Your task to perform on an android device: create a new album in the google photos Image 0: 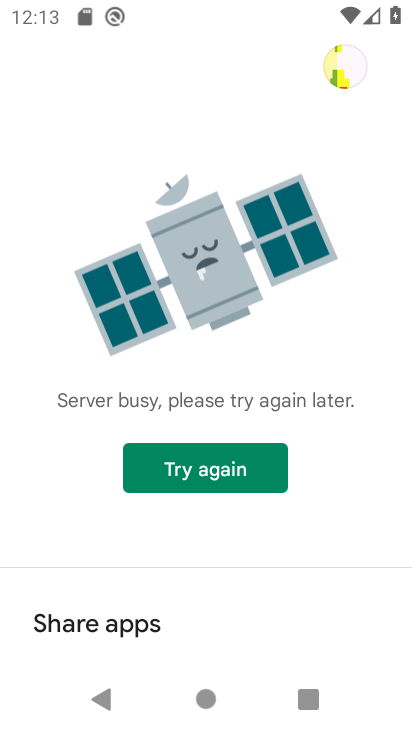
Step 0: press back button
Your task to perform on an android device: create a new album in the google photos Image 1: 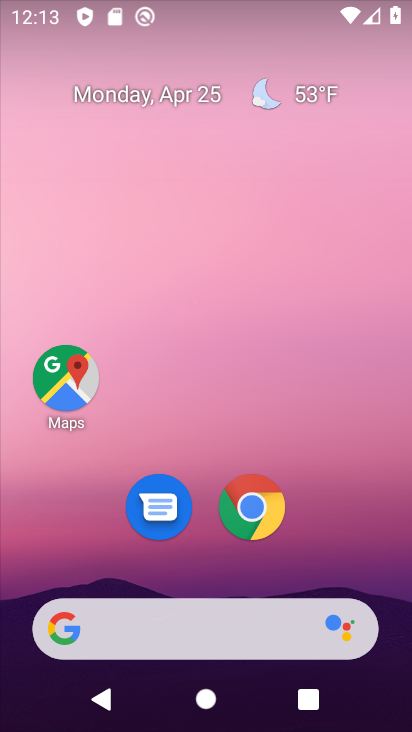
Step 1: drag from (199, 560) to (265, 170)
Your task to perform on an android device: create a new album in the google photos Image 2: 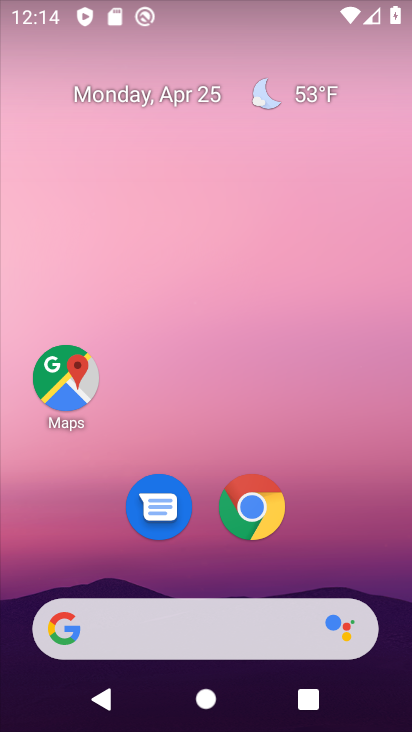
Step 2: drag from (183, 572) to (290, 16)
Your task to perform on an android device: create a new album in the google photos Image 3: 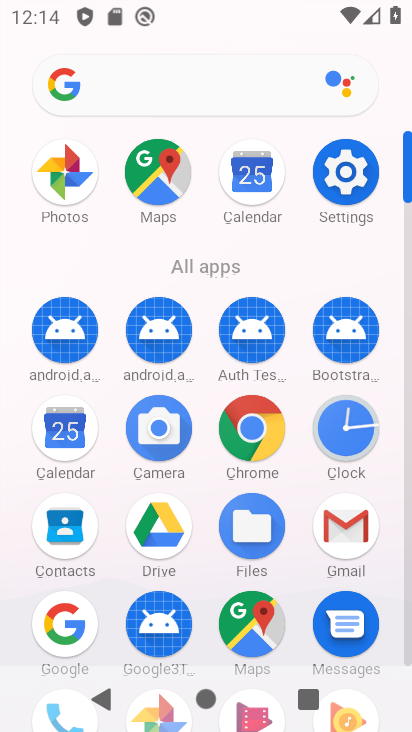
Step 3: drag from (228, 530) to (308, 210)
Your task to perform on an android device: create a new album in the google photos Image 4: 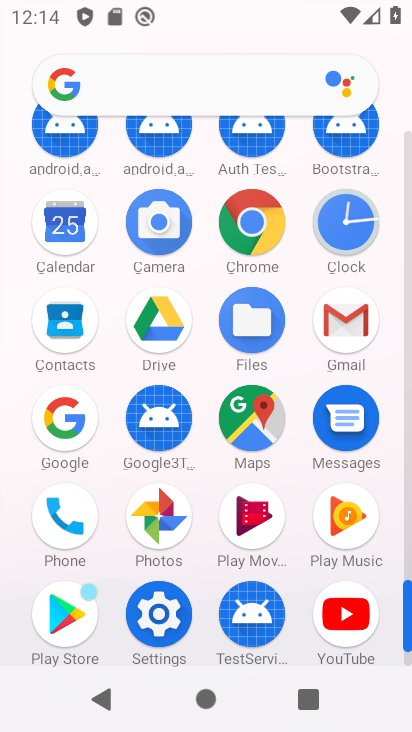
Step 4: click (169, 528)
Your task to perform on an android device: create a new album in the google photos Image 5: 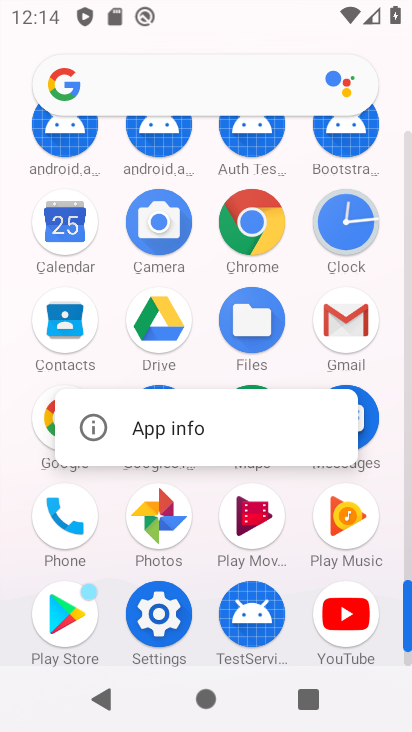
Step 5: click (178, 522)
Your task to perform on an android device: create a new album in the google photos Image 6: 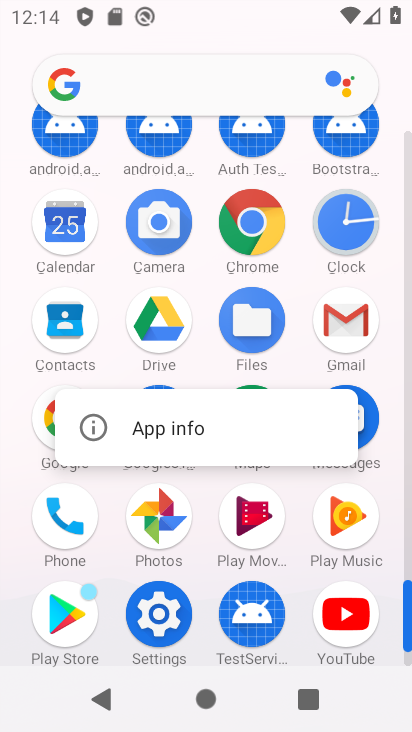
Step 6: click (180, 527)
Your task to perform on an android device: create a new album in the google photos Image 7: 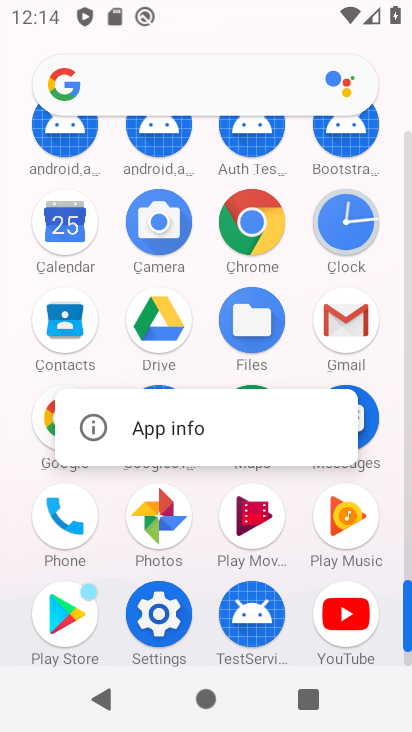
Step 7: click (181, 530)
Your task to perform on an android device: create a new album in the google photos Image 8: 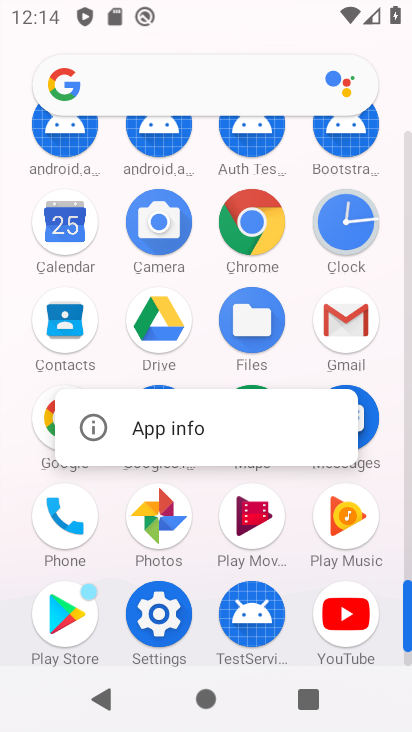
Step 8: click (181, 530)
Your task to perform on an android device: create a new album in the google photos Image 9: 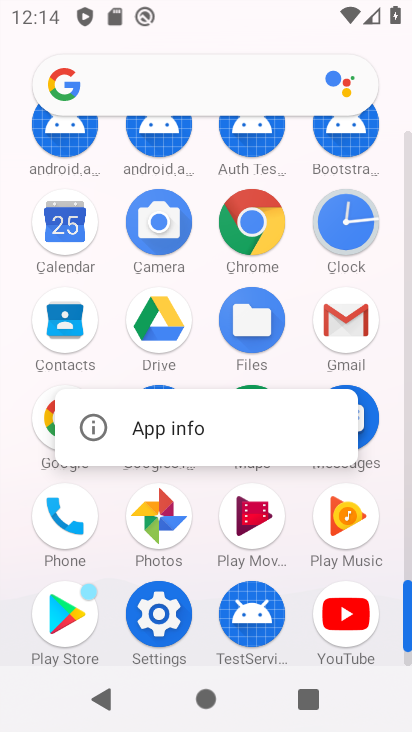
Step 9: click (179, 527)
Your task to perform on an android device: create a new album in the google photos Image 10: 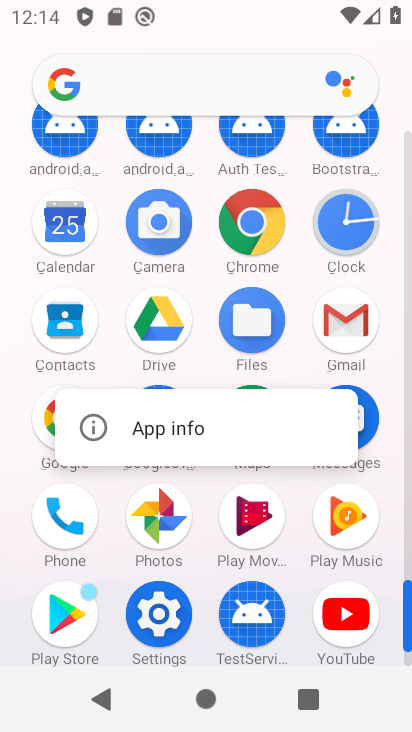
Step 10: click (161, 515)
Your task to perform on an android device: create a new album in the google photos Image 11: 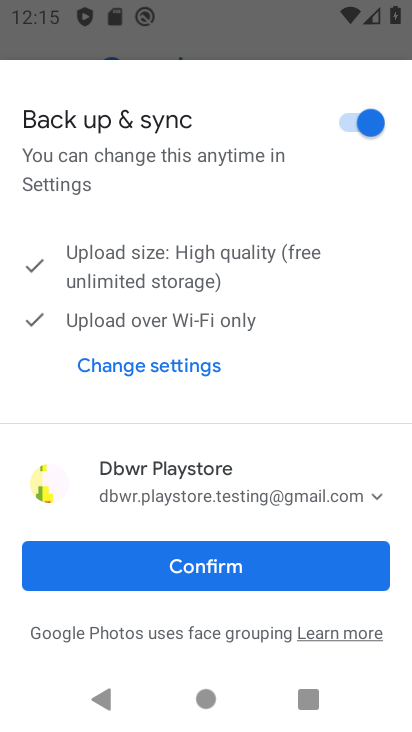
Step 11: click (237, 582)
Your task to perform on an android device: create a new album in the google photos Image 12: 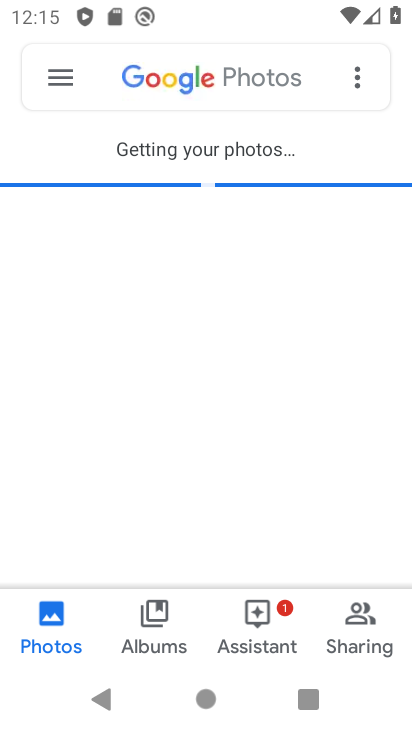
Step 12: click (361, 78)
Your task to perform on an android device: create a new album in the google photos Image 13: 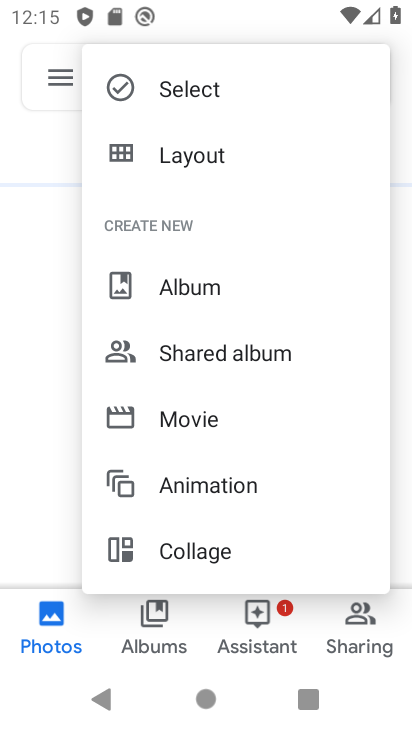
Step 13: click (271, 296)
Your task to perform on an android device: create a new album in the google photos Image 14: 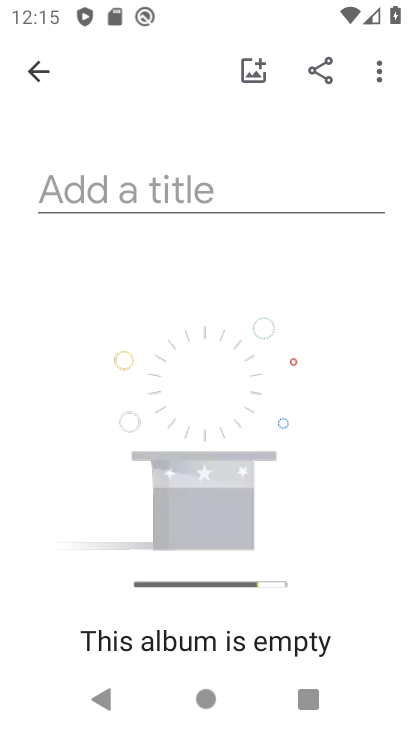
Step 14: click (190, 197)
Your task to perform on an android device: create a new album in the google photos Image 15: 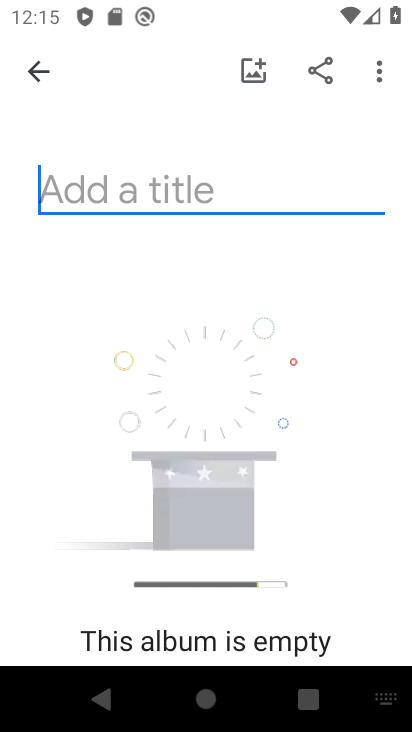
Step 15: type "rrrrrr"
Your task to perform on an android device: create a new album in the google photos Image 16: 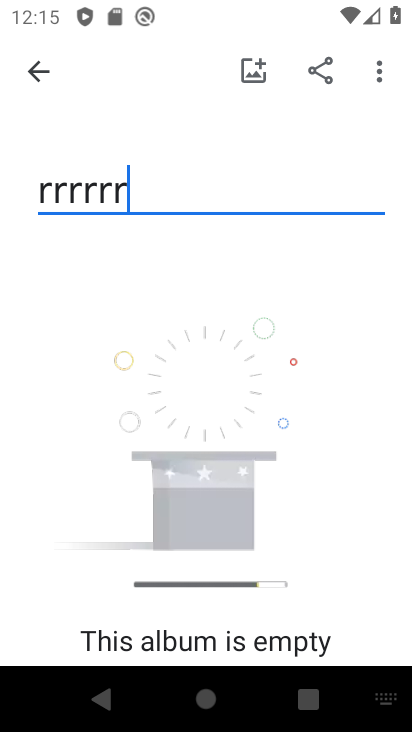
Step 16: drag from (177, 444) to (245, 113)
Your task to perform on an android device: create a new album in the google photos Image 17: 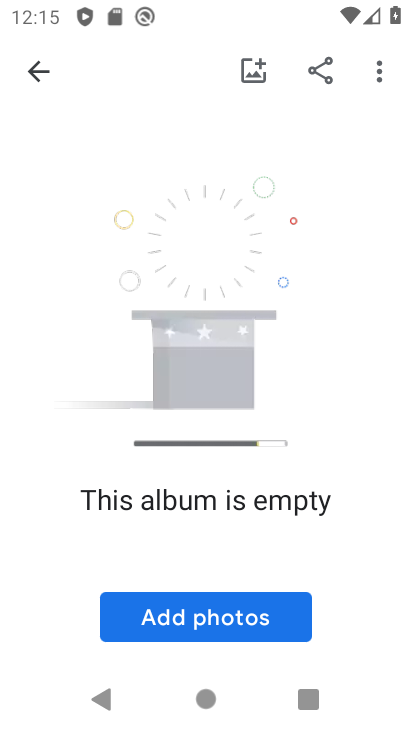
Step 17: click (247, 72)
Your task to perform on an android device: create a new album in the google photos Image 18: 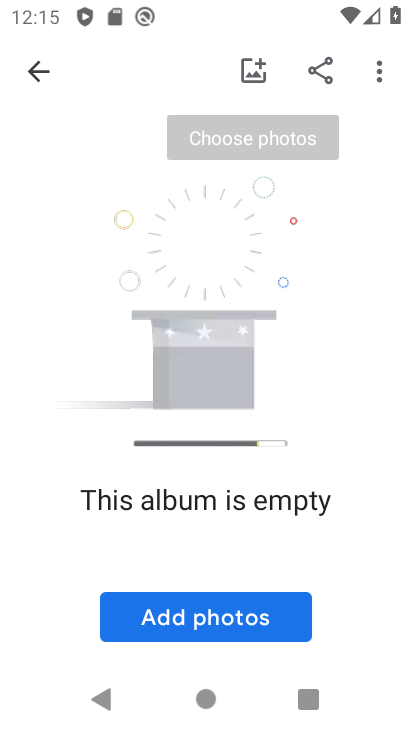
Step 18: click (210, 637)
Your task to perform on an android device: create a new album in the google photos Image 19: 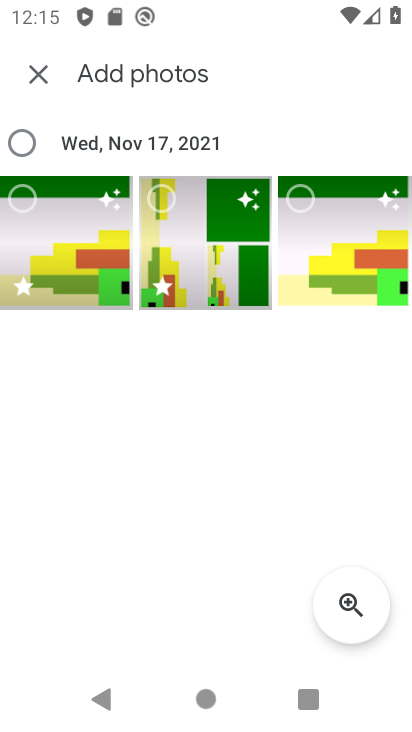
Step 19: click (22, 149)
Your task to perform on an android device: create a new album in the google photos Image 20: 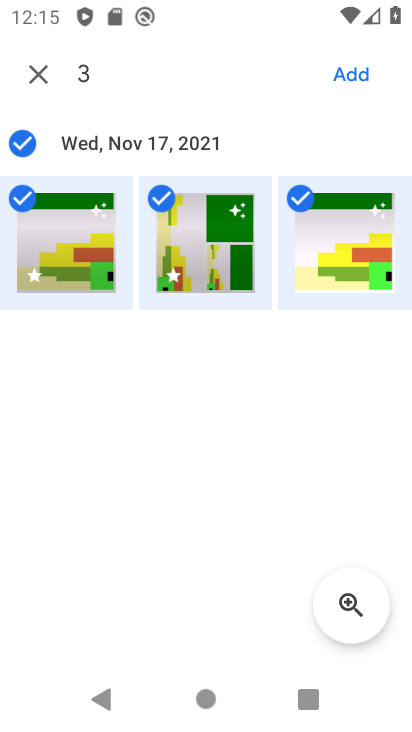
Step 20: click (355, 66)
Your task to perform on an android device: create a new album in the google photos Image 21: 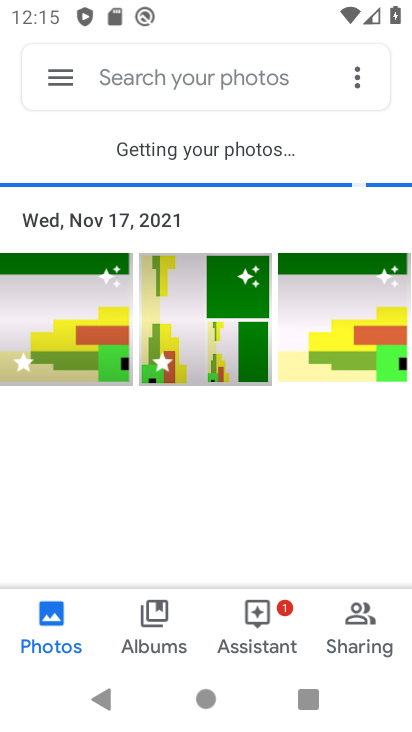
Step 21: drag from (80, 343) to (196, 334)
Your task to perform on an android device: create a new album in the google photos Image 22: 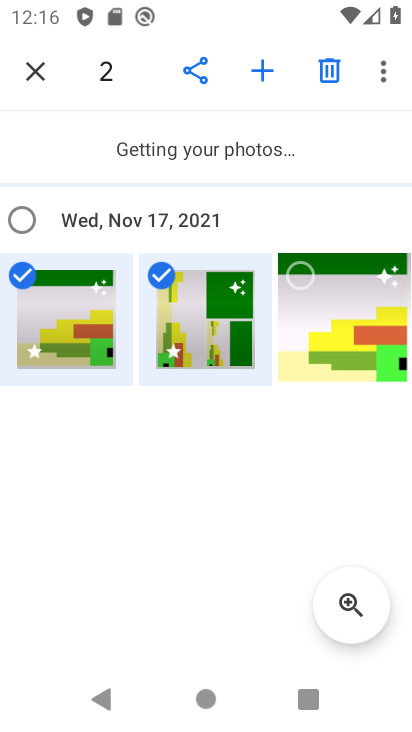
Step 22: click (18, 207)
Your task to perform on an android device: create a new album in the google photos Image 23: 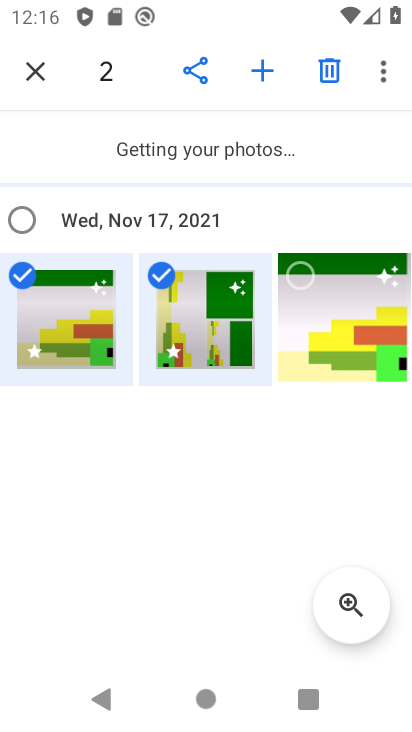
Step 23: click (267, 78)
Your task to perform on an android device: create a new album in the google photos Image 24: 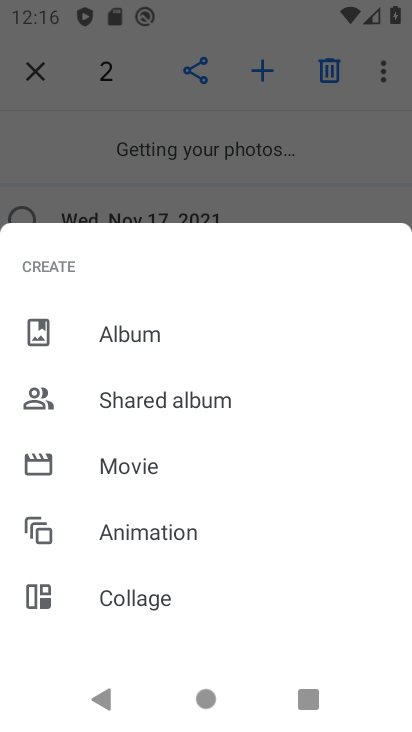
Step 24: click (211, 346)
Your task to perform on an android device: create a new album in the google photos Image 25: 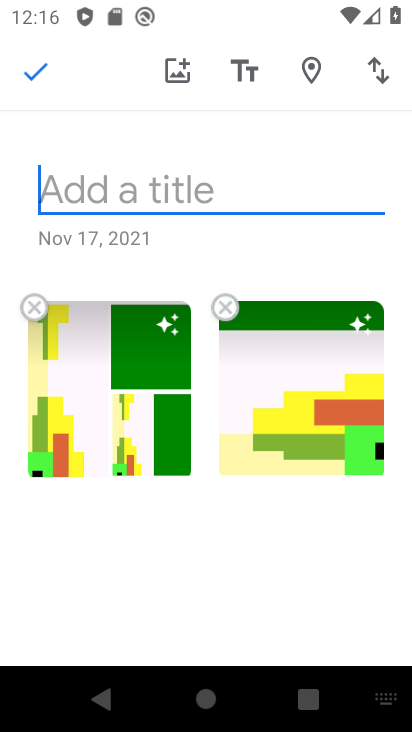
Step 25: type "rrrrrrrrrrrr"
Your task to perform on an android device: create a new album in the google photos Image 26: 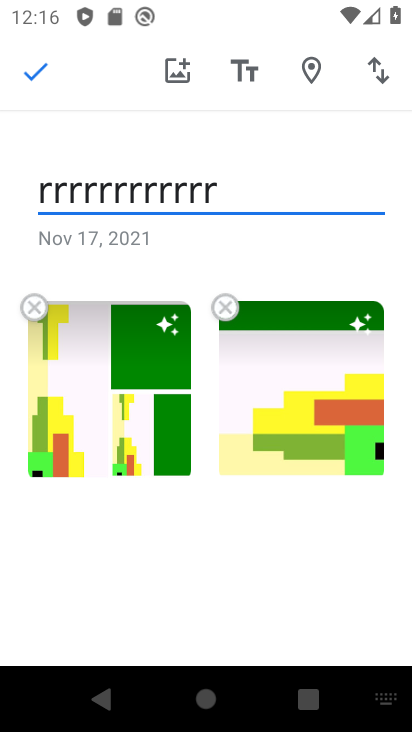
Step 26: click (35, 71)
Your task to perform on an android device: create a new album in the google photos Image 27: 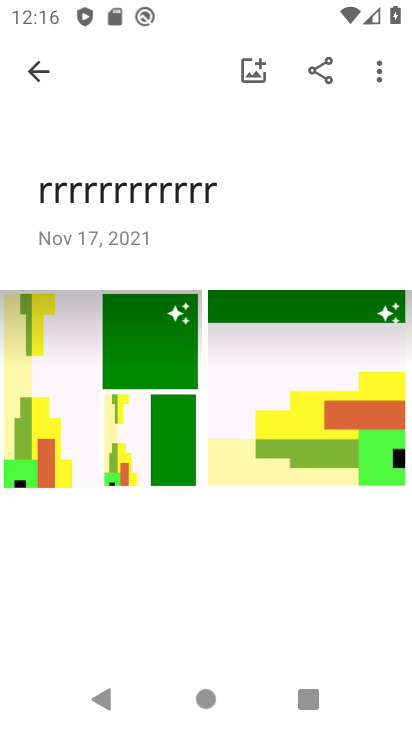
Step 27: task complete